Your task to perform on an android device: change notification settings in the gmail app Image 0: 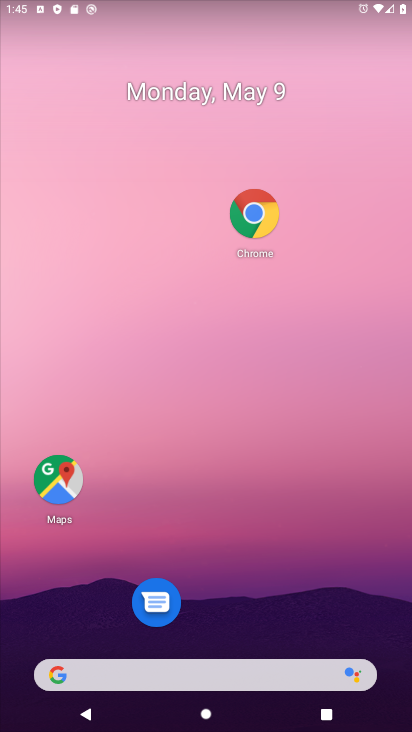
Step 0: drag from (280, 629) to (240, 191)
Your task to perform on an android device: change notification settings in the gmail app Image 1: 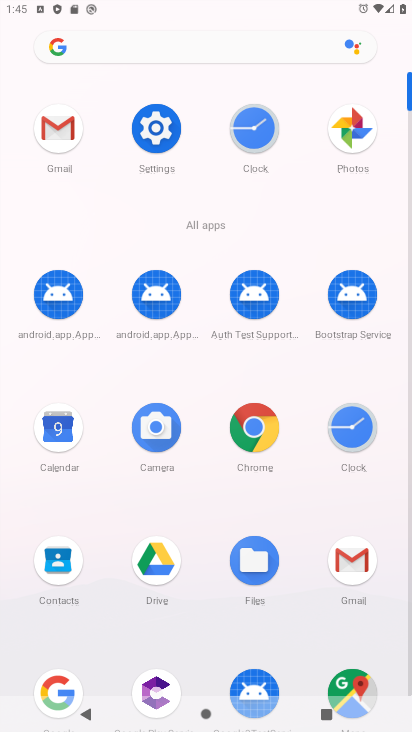
Step 1: click (352, 594)
Your task to perform on an android device: change notification settings in the gmail app Image 2: 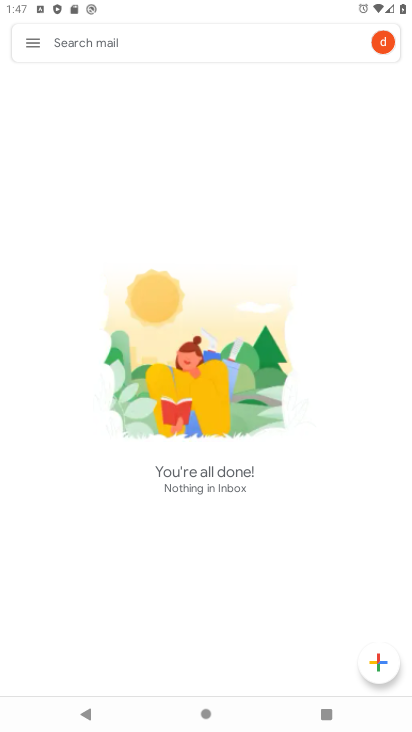
Step 2: press home button
Your task to perform on an android device: change notification settings in the gmail app Image 3: 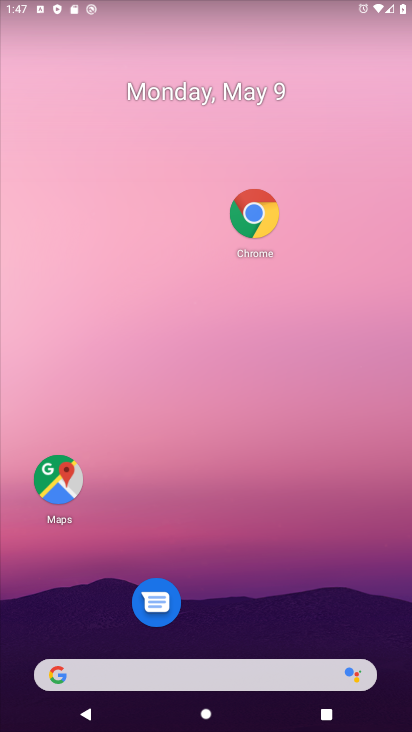
Step 3: drag from (260, 619) to (224, 58)
Your task to perform on an android device: change notification settings in the gmail app Image 4: 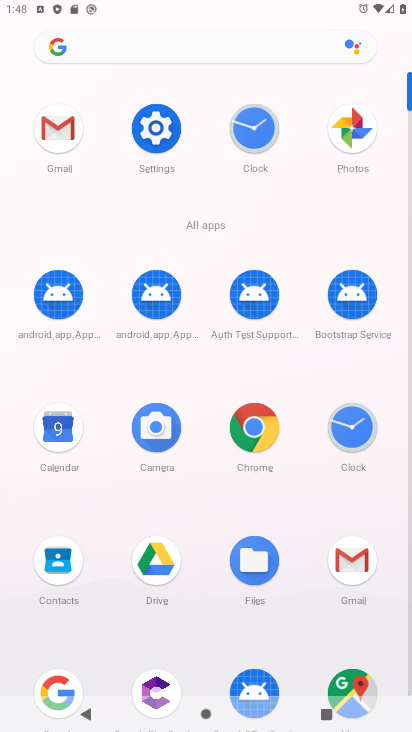
Step 4: click (172, 106)
Your task to perform on an android device: change notification settings in the gmail app Image 5: 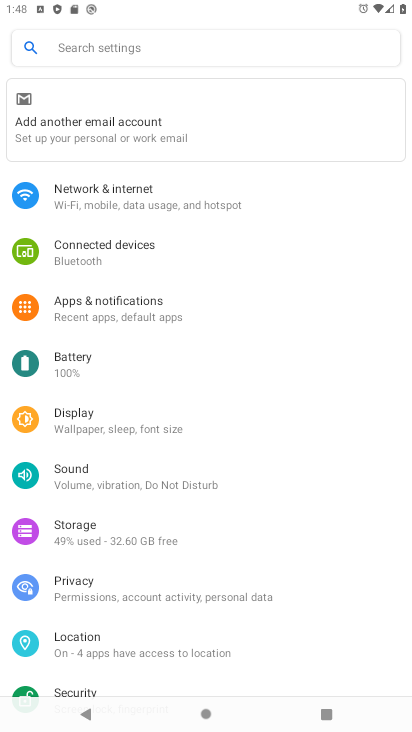
Step 5: press home button
Your task to perform on an android device: change notification settings in the gmail app Image 6: 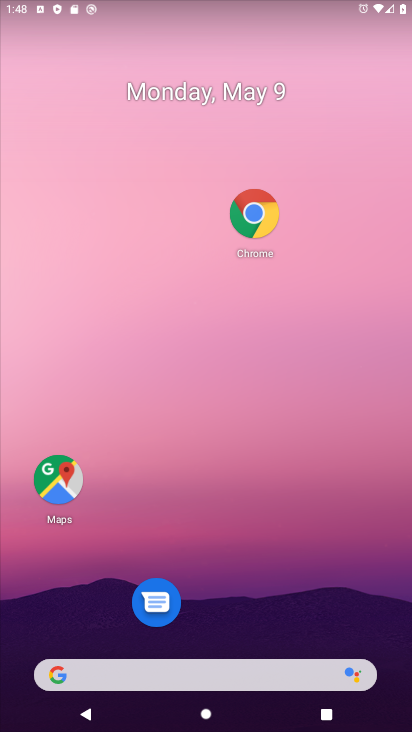
Step 6: drag from (269, 624) to (216, 191)
Your task to perform on an android device: change notification settings in the gmail app Image 7: 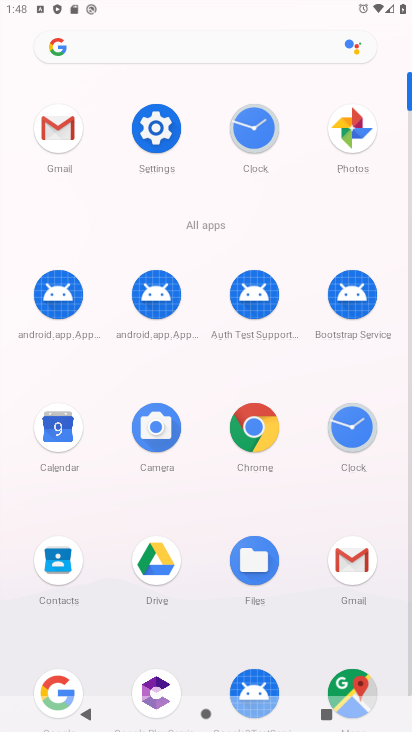
Step 7: click (353, 575)
Your task to perform on an android device: change notification settings in the gmail app Image 8: 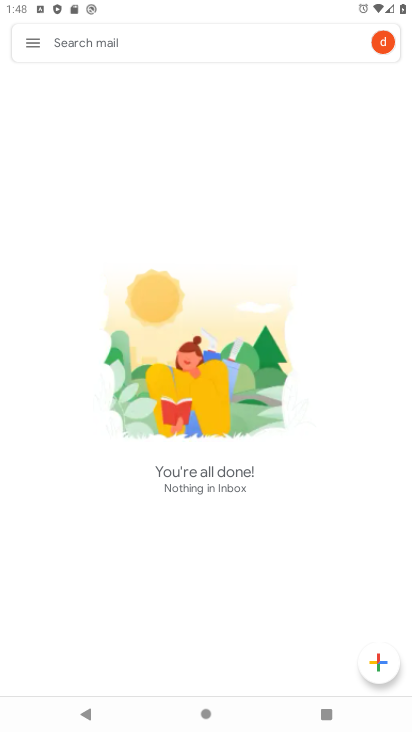
Step 8: click (36, 55)
Your task to perform on an android device: change notification settings in the gmail app Image 9: 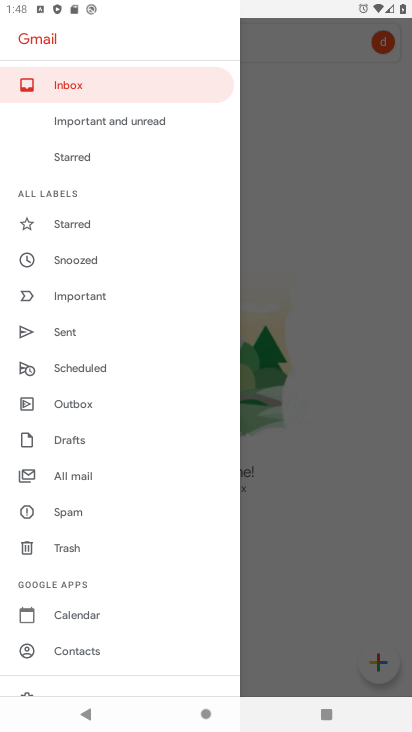
Step 9: drag from (112, 472) to (116, 242)
Your task to perform on an android device: change notification settings in the gmail app Image 10: 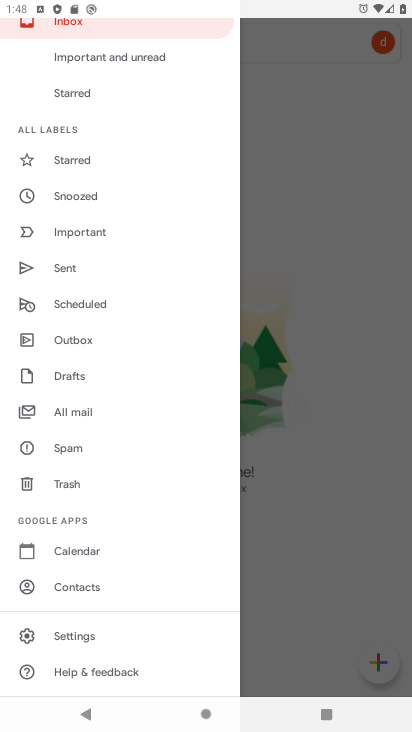
Step 10: click (92, 634)
Your task to perform on an android device: change notification settings in the gmail app Image 11: 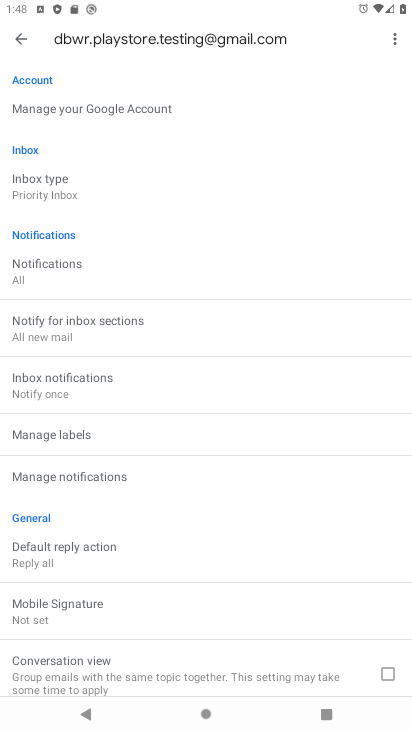
Step 11: click (112, 100)
Your task to perform on an android device: change notification settings in the gmail app Image 12: 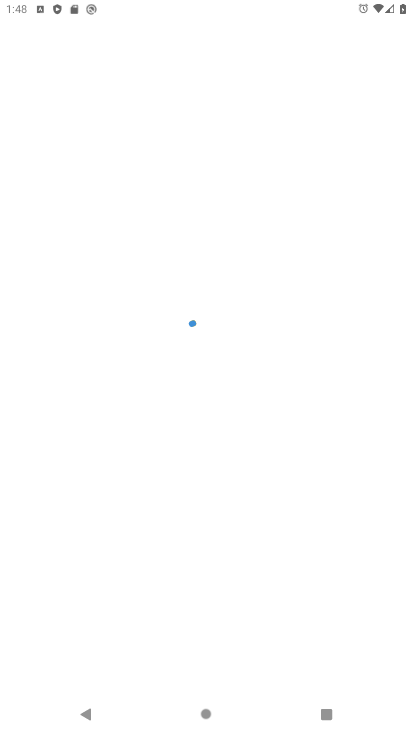
Step 12: task complete